Your task to perform on an android device: What's the weather going to be this weekend? Image 0: 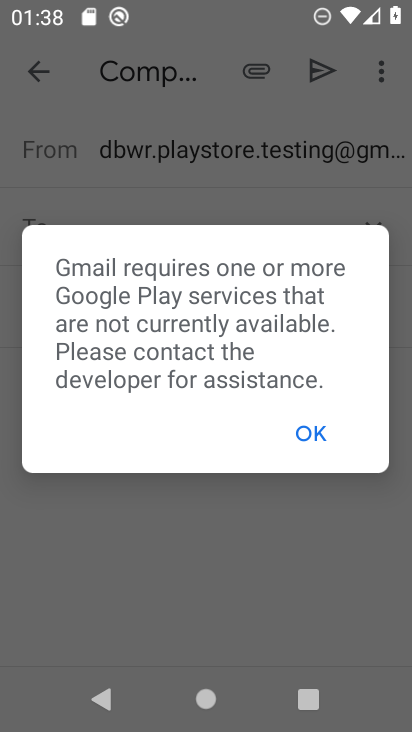
Step 0: click (316, 437)
Your task to perform on an android device: What's the weather going to be this weekend? Image 1: 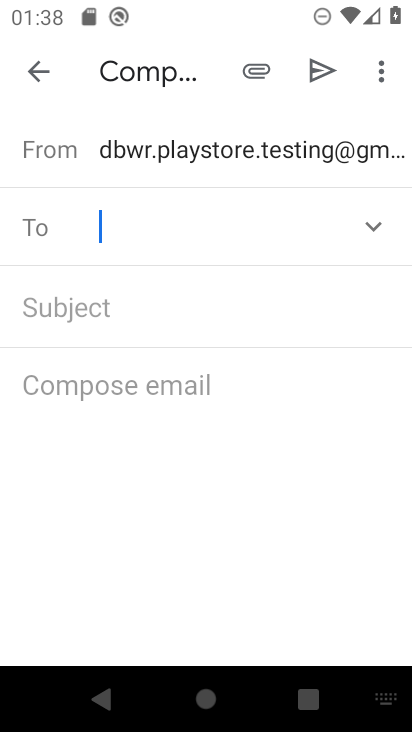
Step 1: press home button
Your task to perform on an android device: What's the weather going to be this weekend? Image 2: 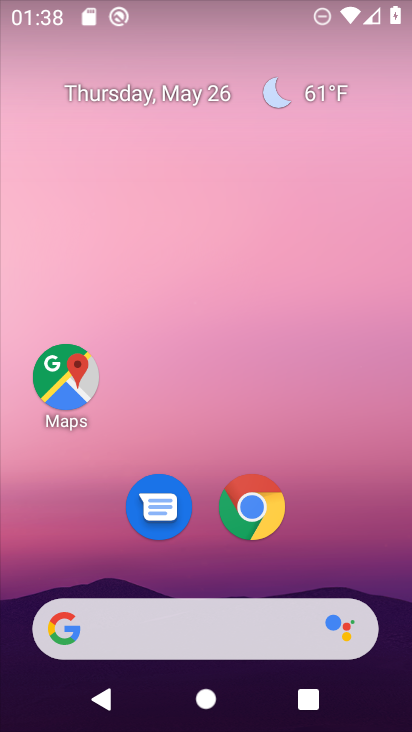
Step 2: click (276, 643)
Your task to perform on an android device: What's the weather going to be this weekend? Image 3: 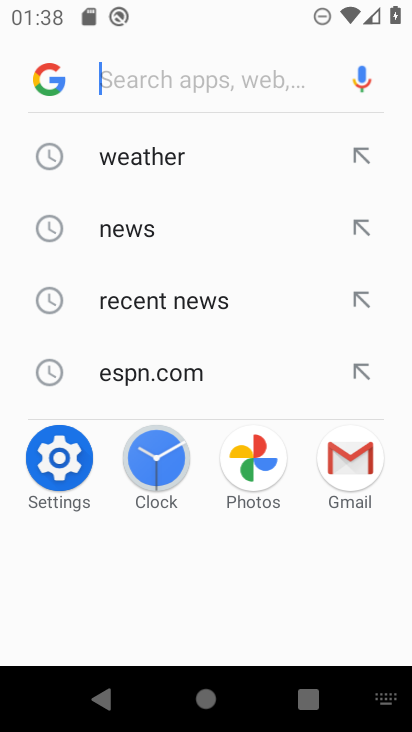
Step 3: click (204, 157)
Your task to perform on an android device: What's the weather going to be this weekend? Image 4: 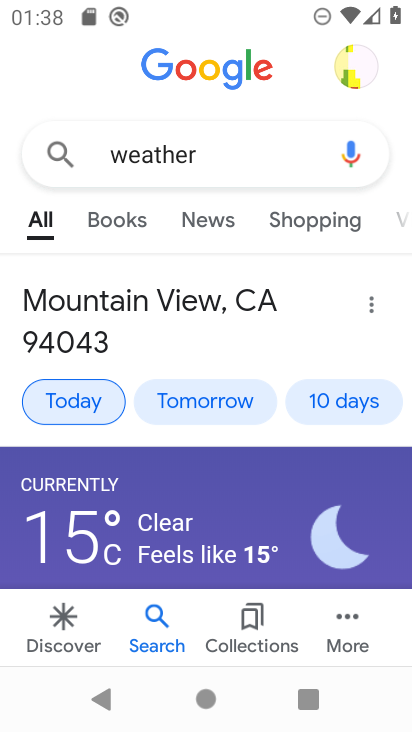
Step 4: click (335, 396)
Your task to perform on an android device: What's the weather going to be this weekend? Image 5: 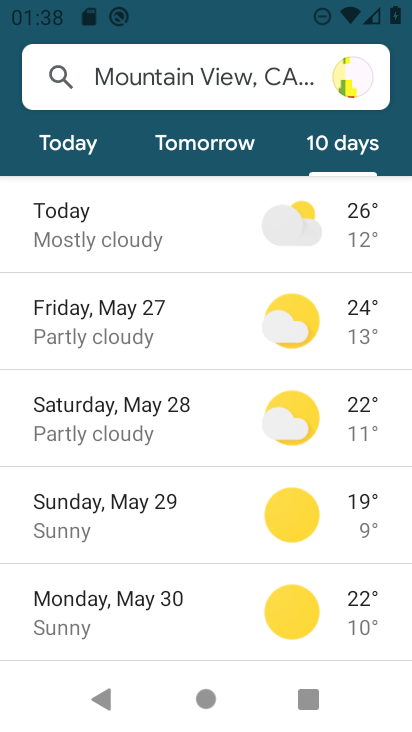
Step 5: task complete